Your task to perform on an android device: allow notifications from all sites in the chrome app Image 0: 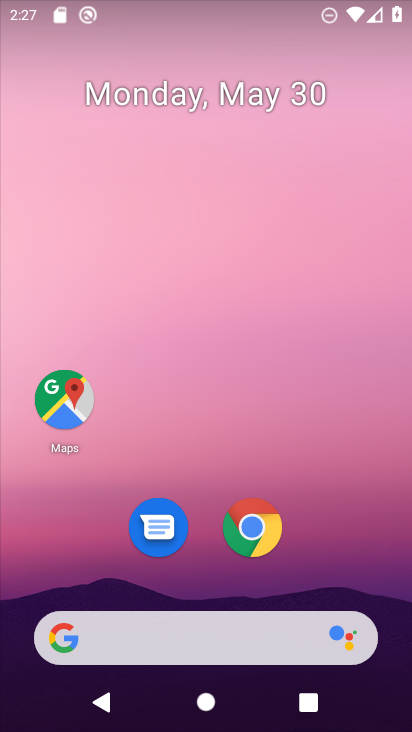
Step 0: drag from (239, 716) to (199, 213)
Your task to perform on an android device: allow notifications from all sites in the chrome app Image 1: 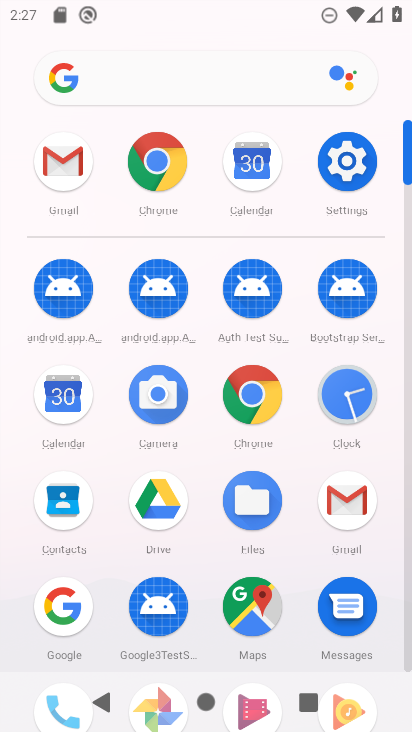
Step 1: click (153, 158)
Your task to perform on an android device: allow notifications from all sites in the chrome app Image 2: 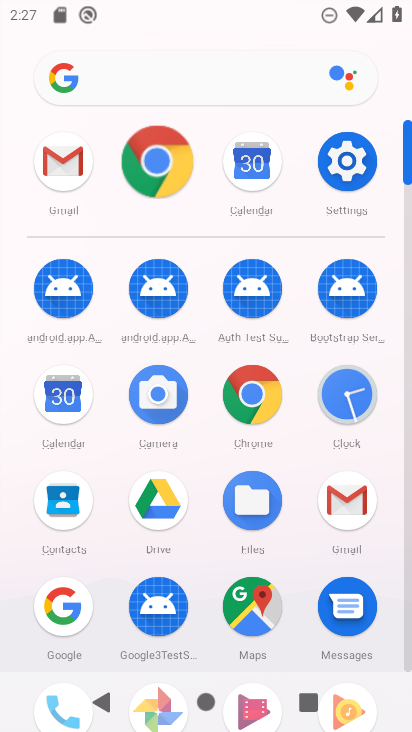
Step 2: click (153, 158)
Your task to perform on an android device: allow notifications from all sites in the chrome app Image 3: 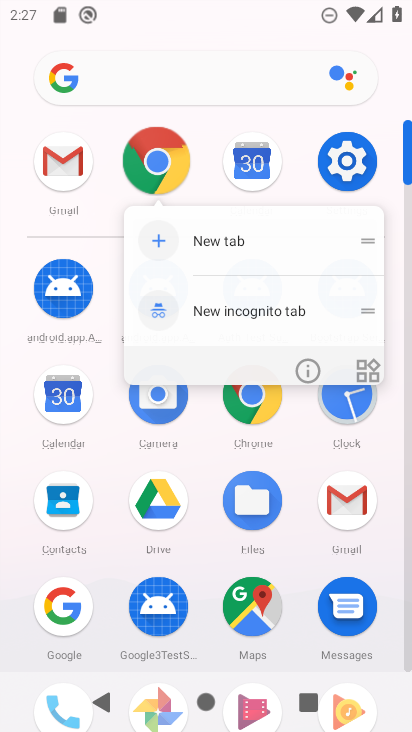
Step 3: click (152, 158)
Your task to perform on an android device: allow notifications from all sites in the chrome app Image 4: 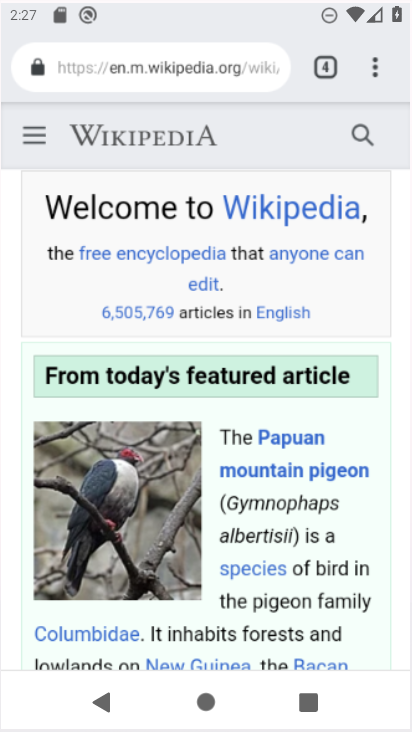
Step 4: click (152, 154)
Your task to perform on an android device: allow notifications from all sites in the chrome app Image 5: 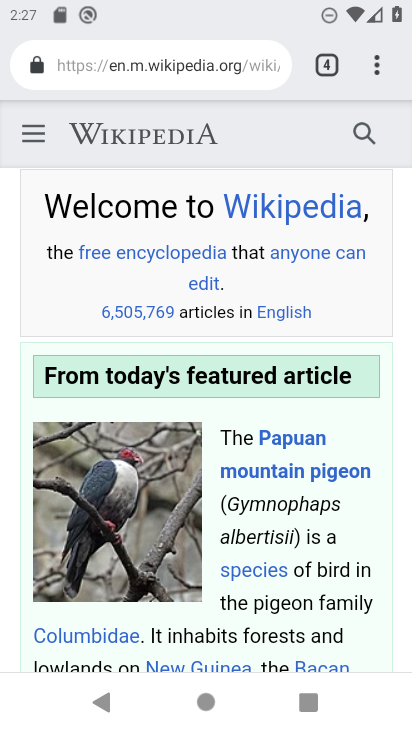
Step 5: click (371, 64)
Your task to perform on an android device: allow notifications from all sites in the chrome app Image 6: 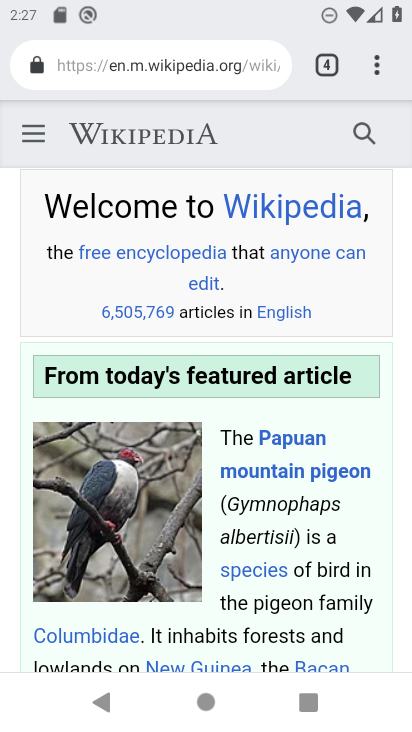
Step 6: click (378, 60)
Your task to perform on an android device: allow notifications from all sites in the chrome app Image 7: 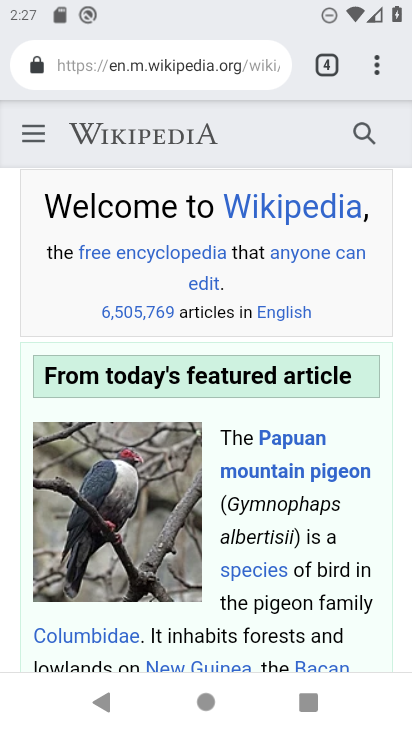
Step 7: click (379, 61)
Your task to perform on an android device: allow notifications from all sites in the chrome app Image 8: 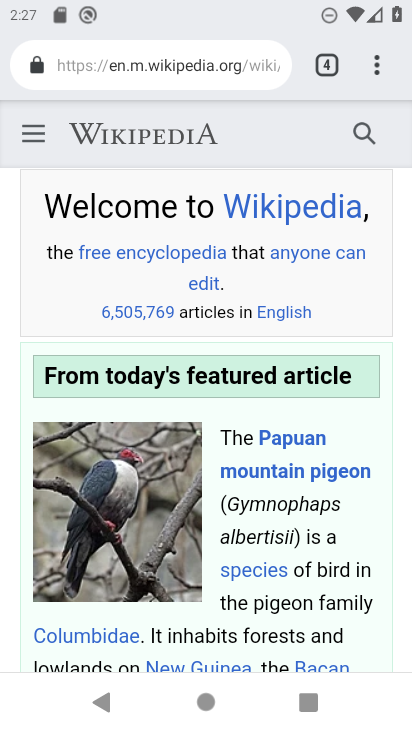
Step 8: drag from (371, 64) to (126, 570)
Your task to perform on an android device: allow notifications from all sites in the chrome app Image 9: 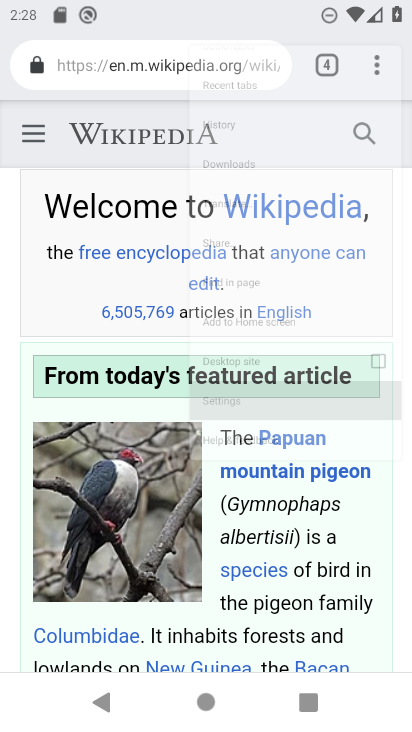
Step 9: click (131, 574)
Your task to perform on an android device: allow notifications from all sites in the chrome app Image 10: 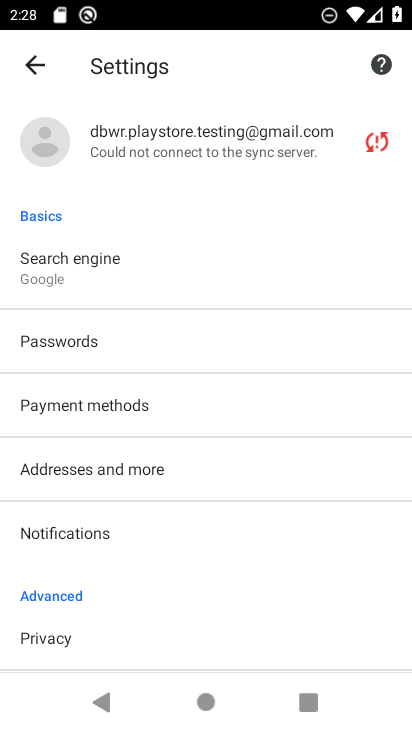
Step 10: drag from (79, 587) to (13, 157)
Your task to perform on an android device: allow notifications from all sites in the chrome app Image 11: 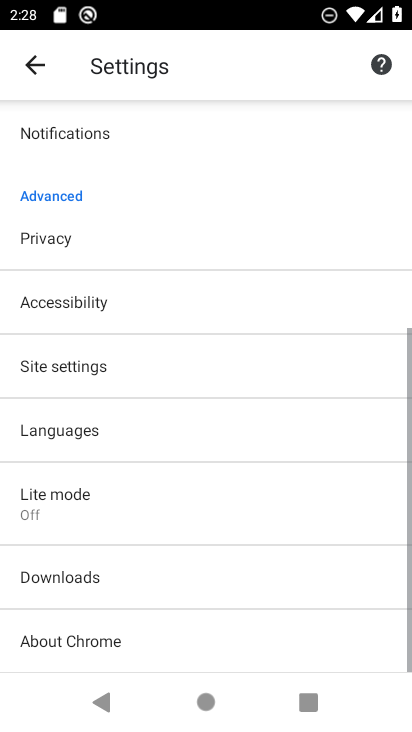
Step 11: drag from (131, 602) to (106, 236)
Your task to perform on an android device: allow notifications from all sites in the chrome app Image 12: 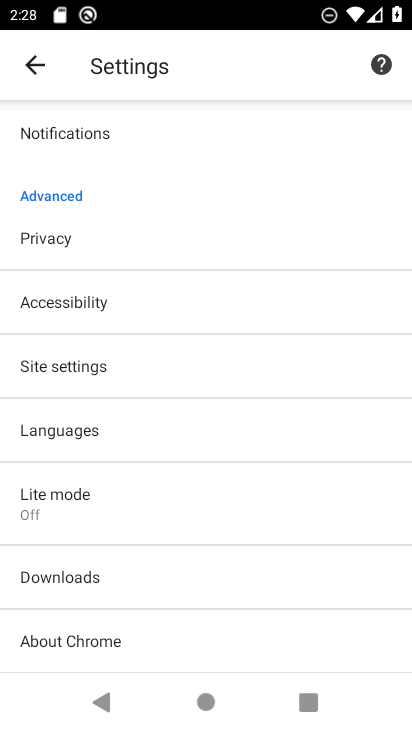
Step 12: click (75, 361)
Your task to perform on an android device: allow notifications from all sites in the chrome app Image 13: 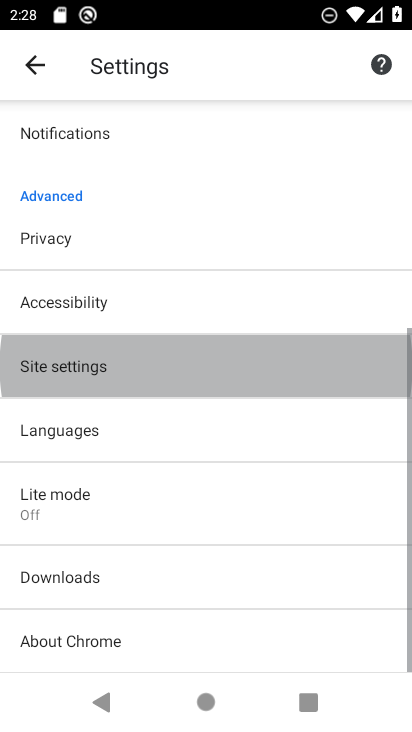
Step 13: click (71, 364)
Your task to perform on an android device: allow notifications from all sites in the chrome app Image 14: 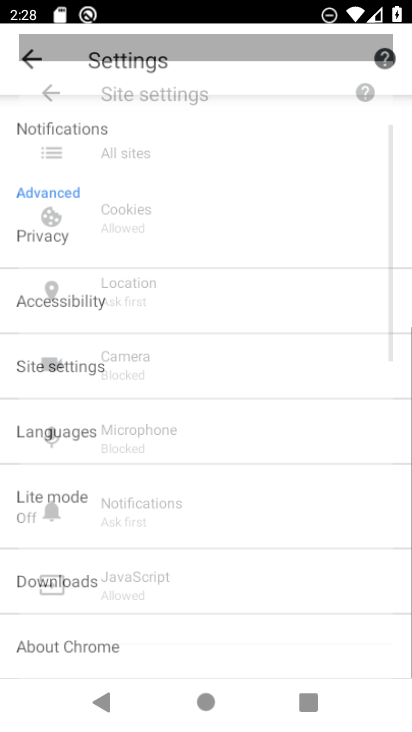
Step 14: click (71, 372)
Your task to perform on an android device: allow notifications from all sites in the chrome app Image 15: 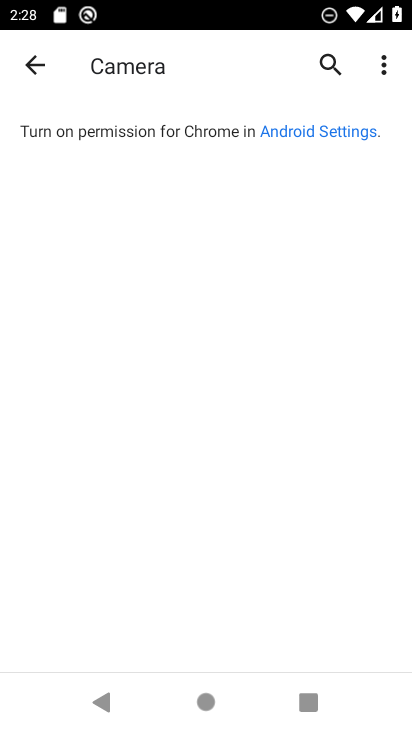
Step 15: click (30, 59)
Your task to perform on an android device: allow notifications from all sites in the chrome app Image 16: 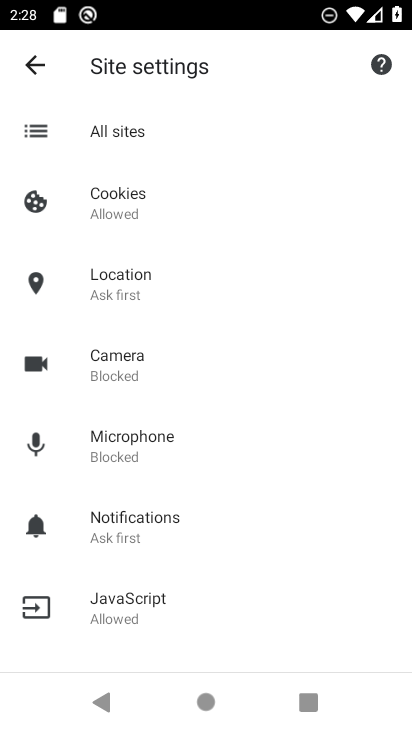
Step 16: click (119, 484)
Your task to perform on an android device: allow notifications from all sites in the chrome app Image 17: 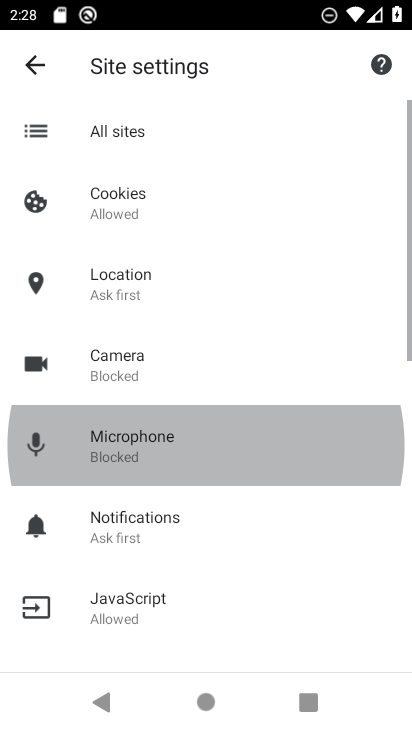
Step 17: click (119, 524)
Your task to perform on an android device: allow notifications from all sites in the chrome app Image 18: 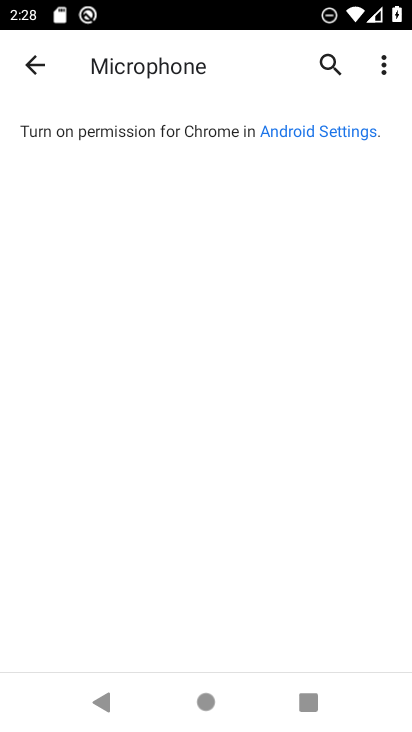
Step 18: click (119, 520)
Your task to perform on an android device: allow notifications from all sites in the chrome app Image 19: 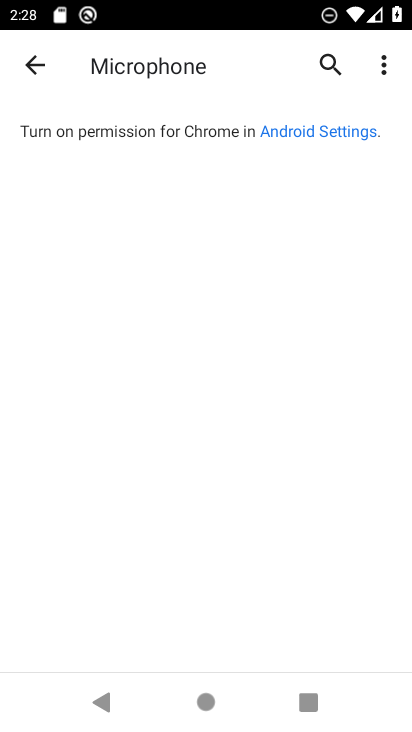
Step 19: click (119, 519)
Your task to perform on an android device: allow notifications from all sites in the chrome app Image 20: 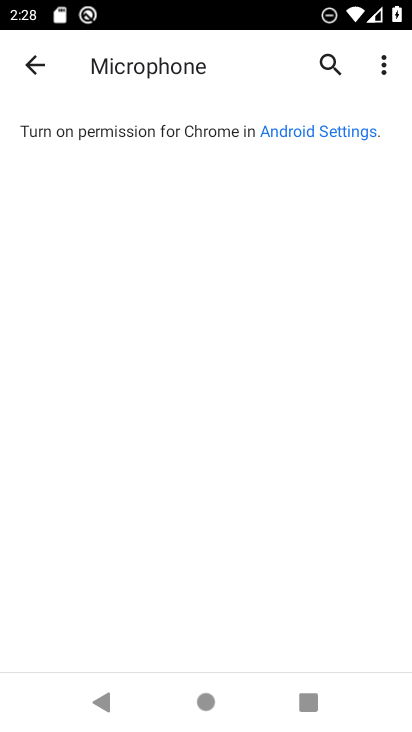
Step 20: click (33, 61)
Your task to perform on an android device: allow notifications from all sites in the chrome app Image 21: 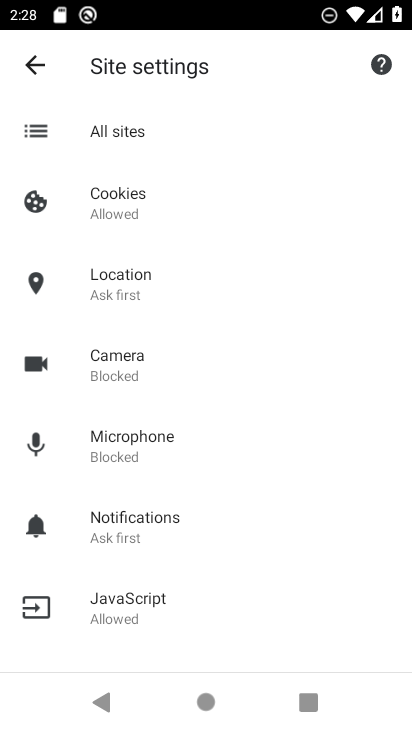
Step 21: click (151, 521)
Your task to perform on an android device: allow notifications from all sites in the chrome app Image 22: 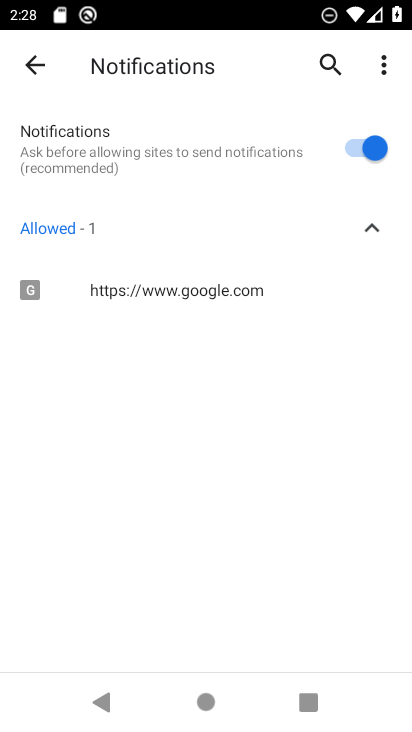
Step 22: task complete